Your task to perform on an android device: add a contact Image 0: 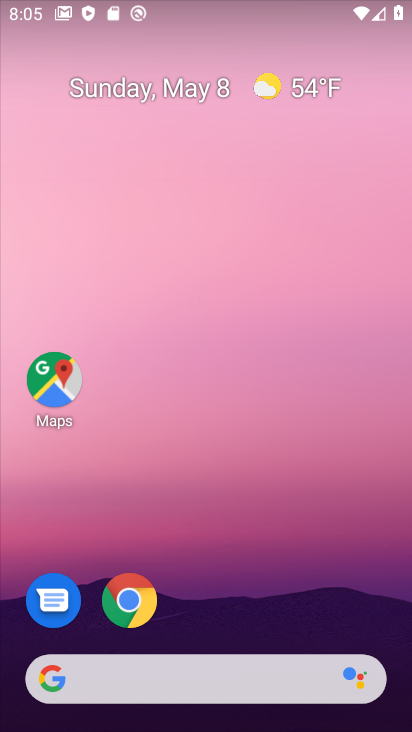
Step 0: drag from (193, 623) to (287, 271)
Your task to perform on an android device: add a contact Image 1: 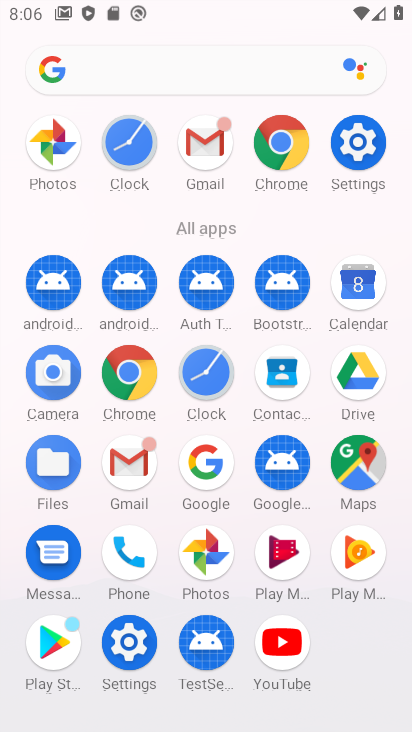
Step 1: click (265, 376)
Your task to perform on an android device: add a contact Image 2: 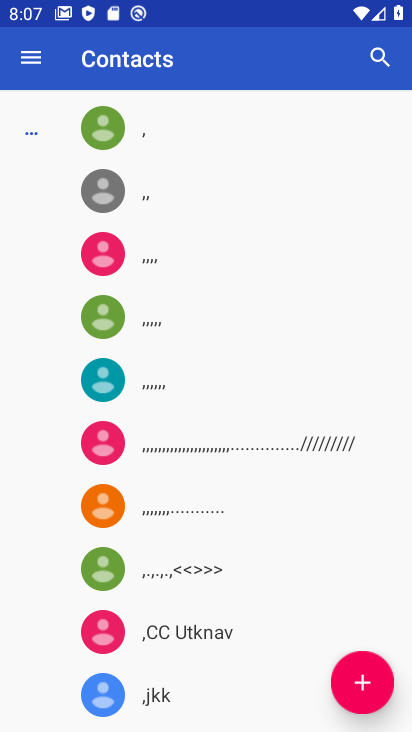
Step 2: click (354, 675)
Your task to perform on an android device: add a contact Image 3: 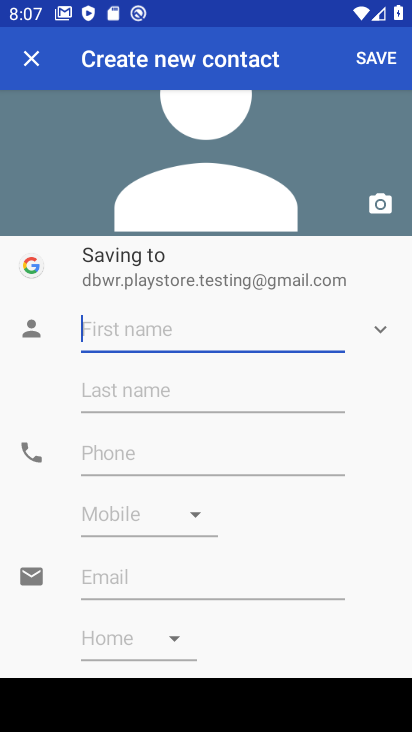
Step 3: type "bbb"
Your task to perform on an android device: add a contact Image 4: 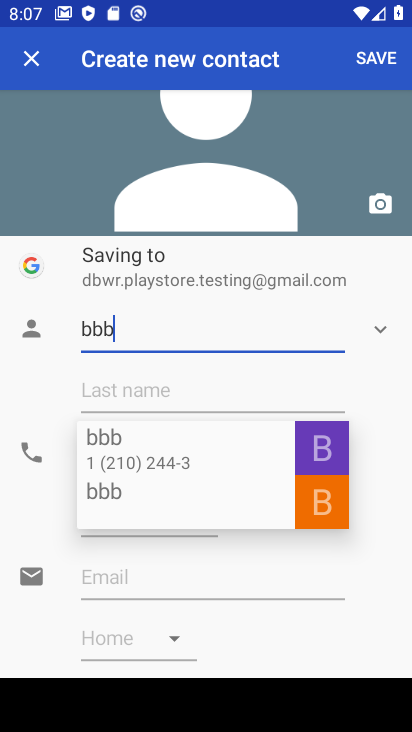
Step 4: click (107, 466)
Your task to perform on an android device: add a contact Image 5: 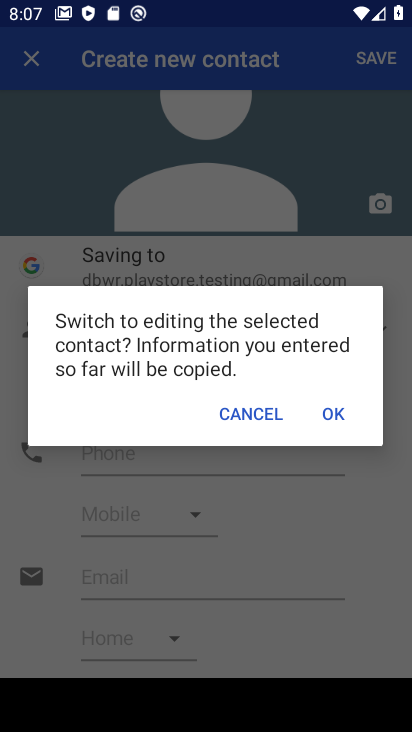
Step 5: click (249, 407)
Your task to perform on an android device: add a contact Image 6: 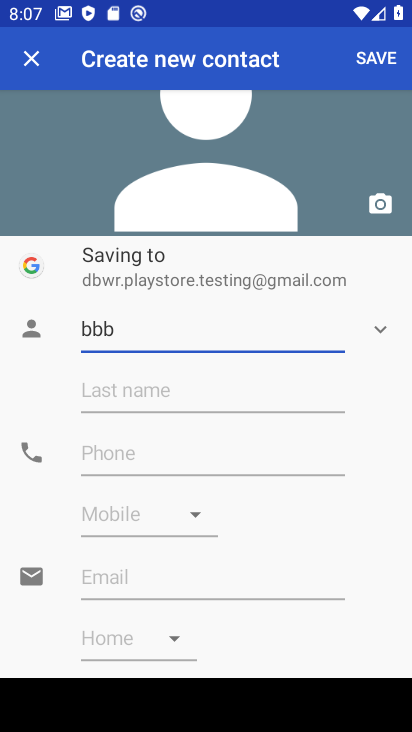
Step 6: type "ooba"
Your task to perform on an android device: add a contact Image 7: 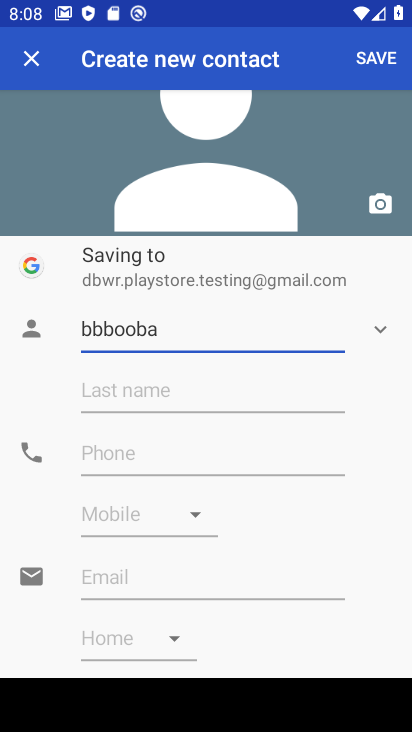
Step 7: click (157, 460)
Your task to perform on an android device: add a contact Image 8: 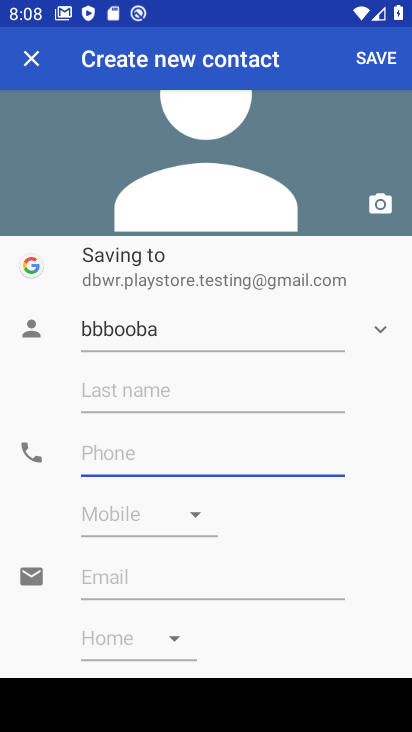
Step 8: click (118, 329)
Your task to perform on an android device: add a contact Image 9: 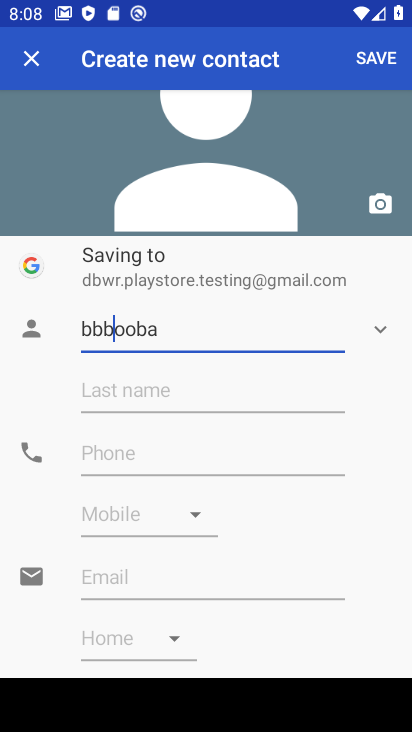
Step 9: click (257, 333)
Your task to perform on an android device: add a contact Image 10: 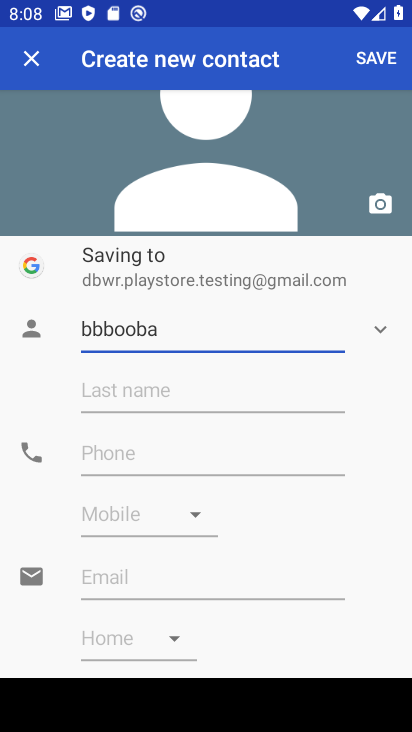
Step 10: click (129, 332)
Your task to perform on an android device: add a contact Image 11: 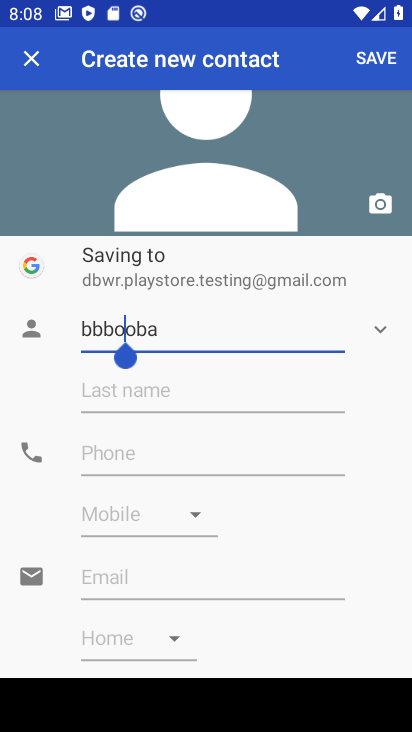
Step 11: click (129, 332)
Your task to perform on an android device: add a contact Image 12: 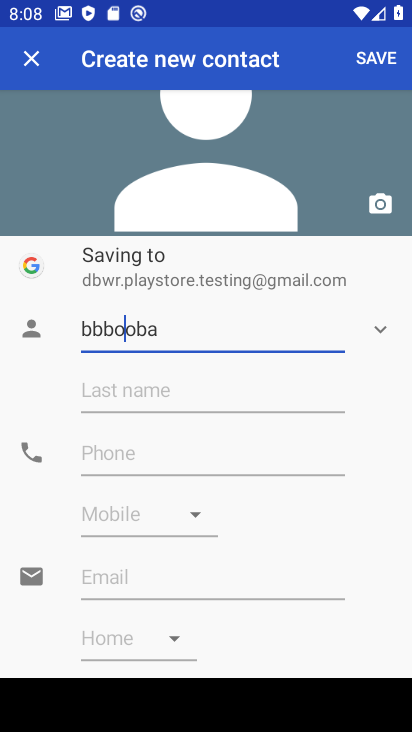
Step 12: type "li"
Your task to perform on an android device: add a contact Image 13: 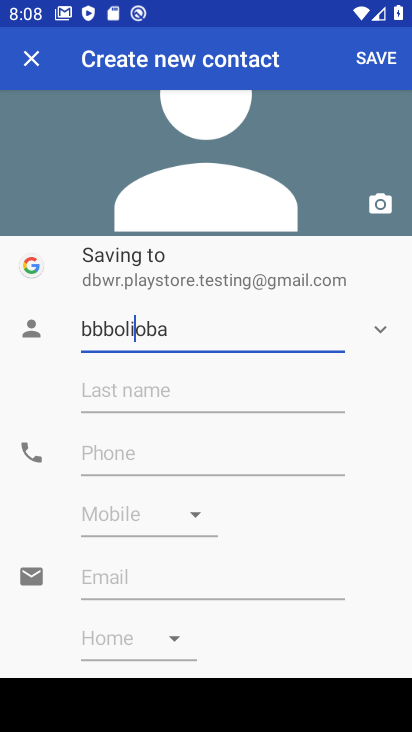
Step 13: click (197, 461)
Your task to perform on an android device: add a contact Image 14: 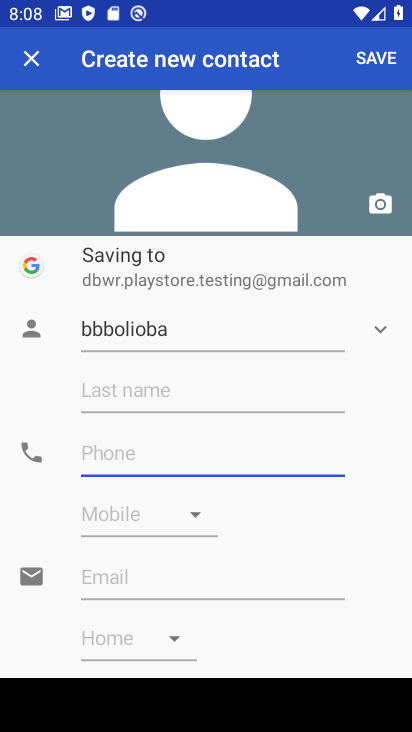
Step 14: type "987654389"
Your task to perform on an android device: add a contact Image 15: 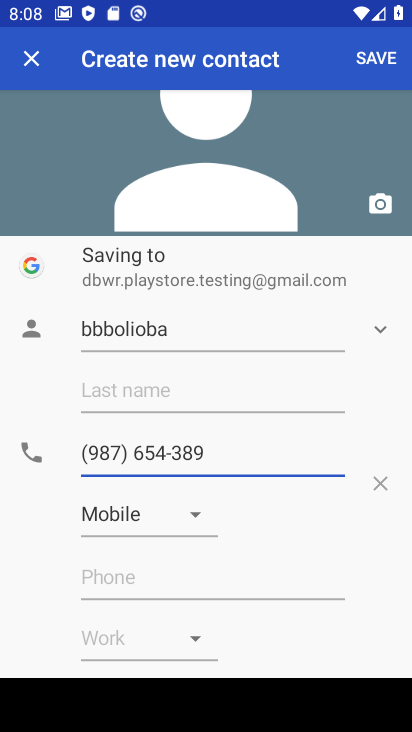
Step 15: click (382, 68)
Your task to perform on an android device: add a contact Image 16: 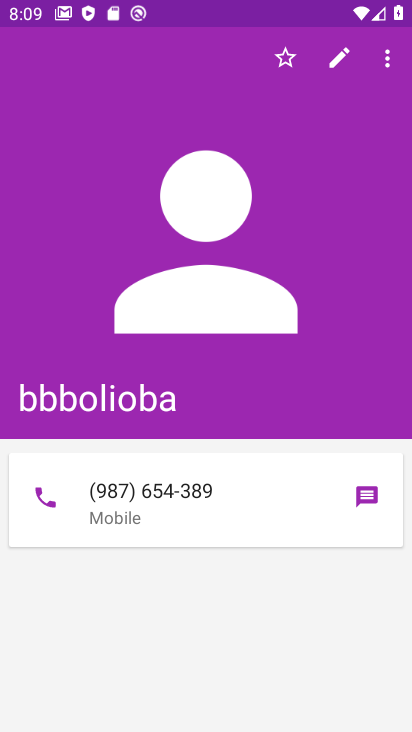
Step 16: task complete